Your task to perform on an android device: Go to wifi settings Image 0: 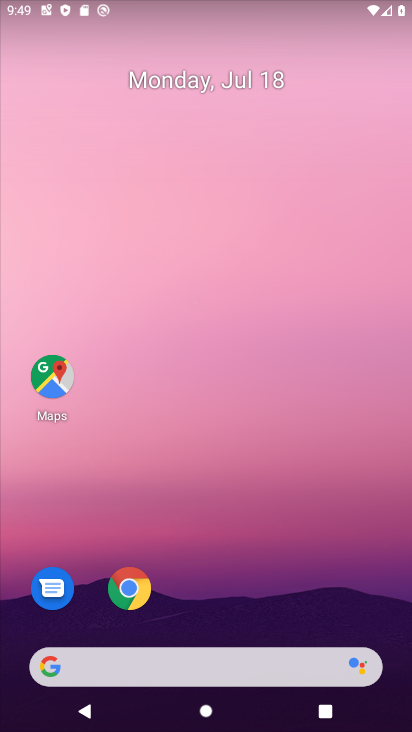
Step 0: drag from (145, 7) to (194, 526)
Your task to perform on an android device: Go to wifi settings Image 1: 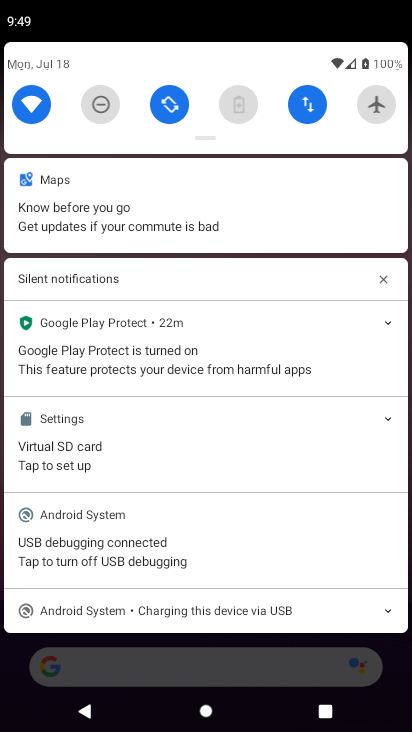
Step 1: click (28, 112)
Your task to perform on an android device: Go to wifi settings Image 2: 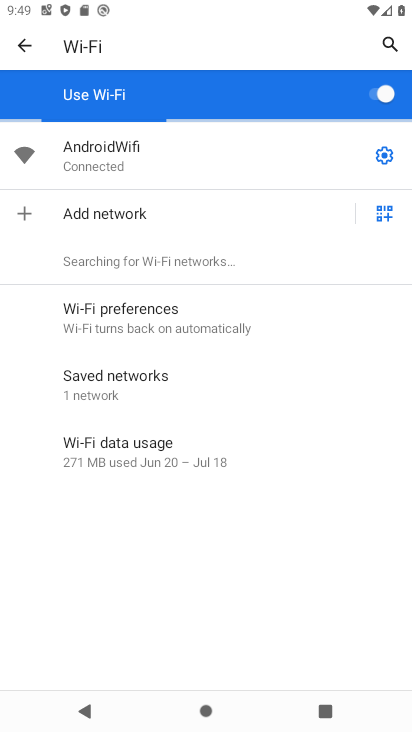
Step 2: task complete